Your task to perform on an android device: Go to wifi settings Image 0: 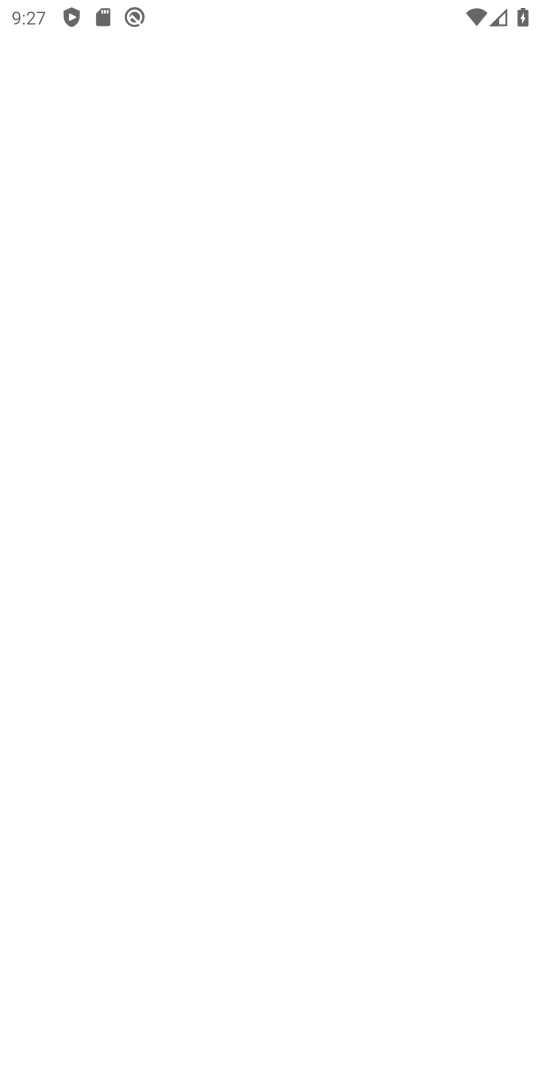
Step 0: press home button
Your task to perform on an android device: Go to wifi settings Image 1: 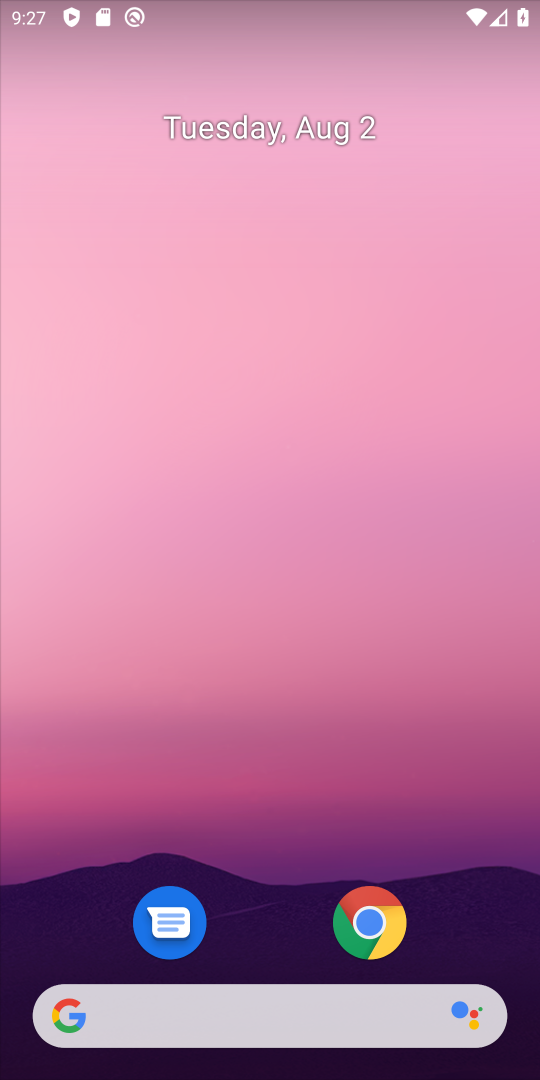
Step 1: drag from (464, 660) to (440, 180)
Your task to perform on an android device: Go to wifi settings Image 2: 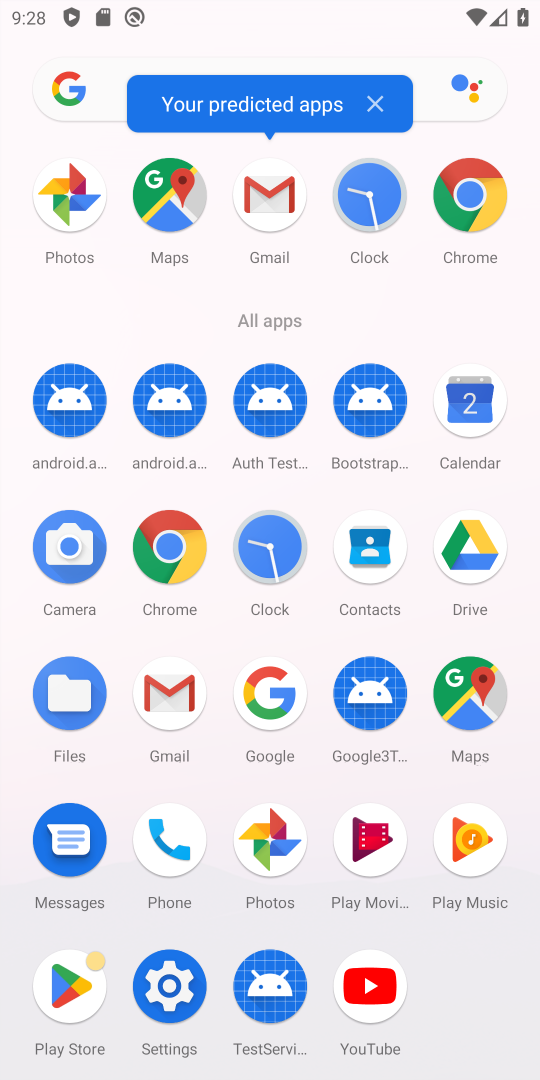
Step 2: click (144, 992)
Your task to perform on an android device: Go to wifi settings Image 3: 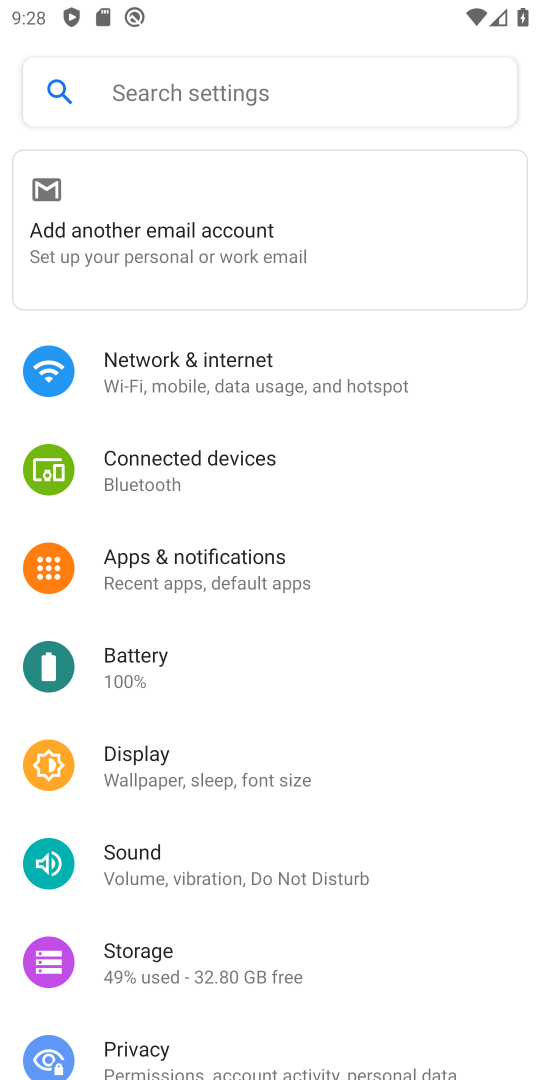
Step 3: click (368, 404)
Your task to perform on an android device: Go to wifi settings Image 4: 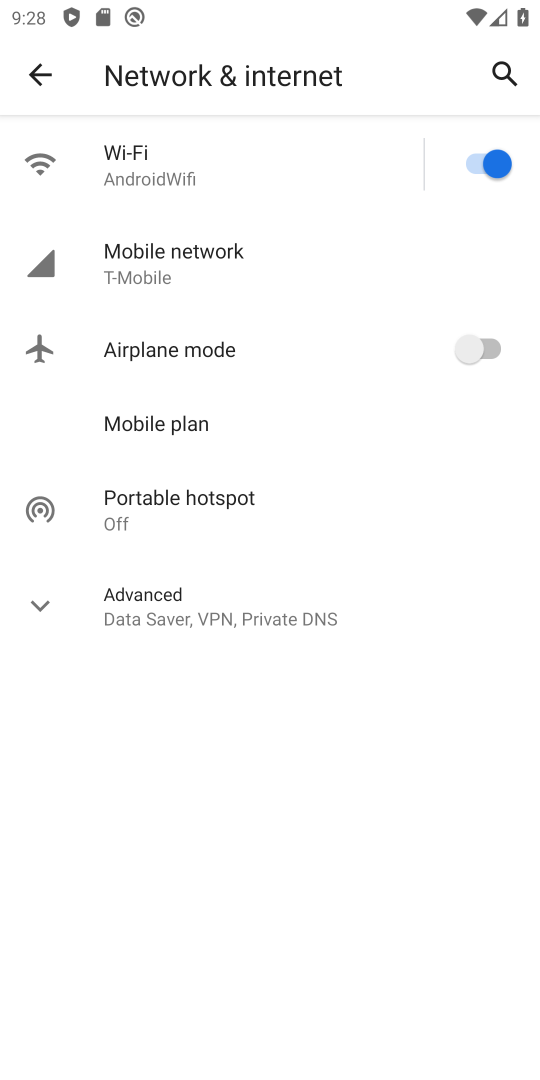
Step 4: click (187, 184)
Your task to perform on an android device: Go to wifi settings Image 5: 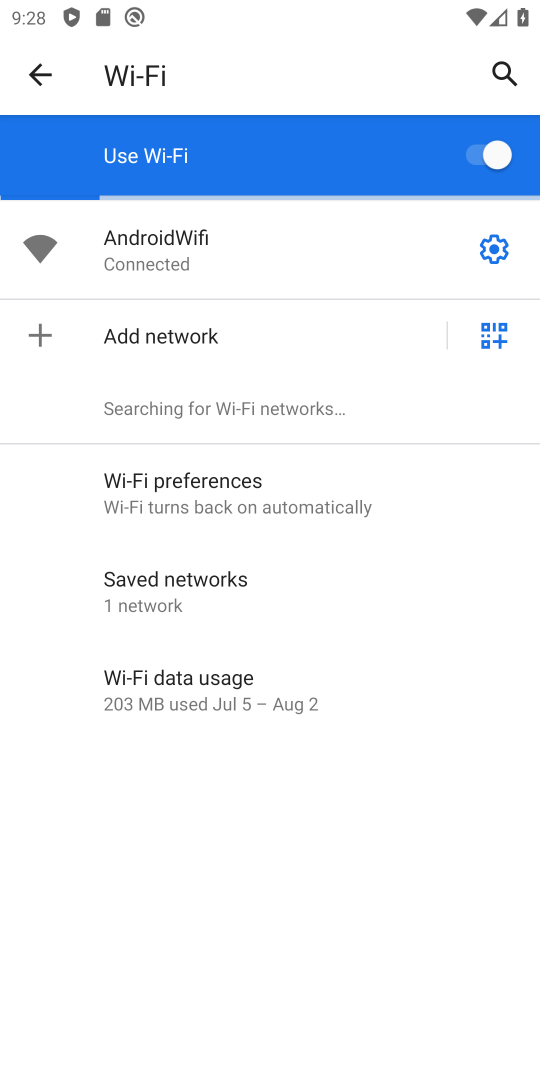
Step 5: task complete